Your task to perform on an android device: Open settings on Google Maps Image 0: 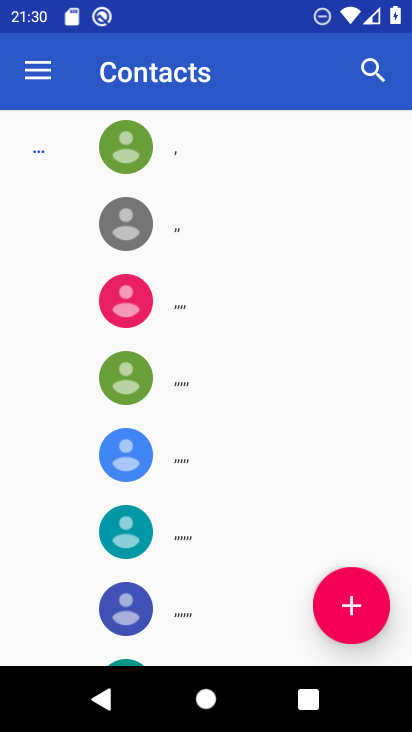
Step 0: press home button
Your task to perform on an android device: Open settings on Google Maps Image 1: 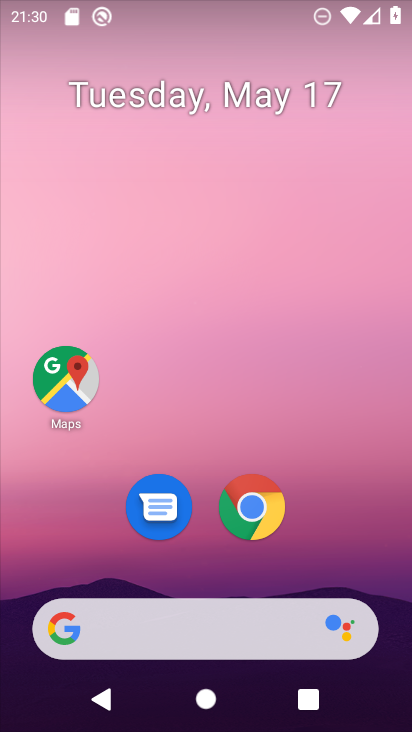
Step 1: click (72, 380)
Your task to perform on an android device: Open settings on Google Maps Image 2: 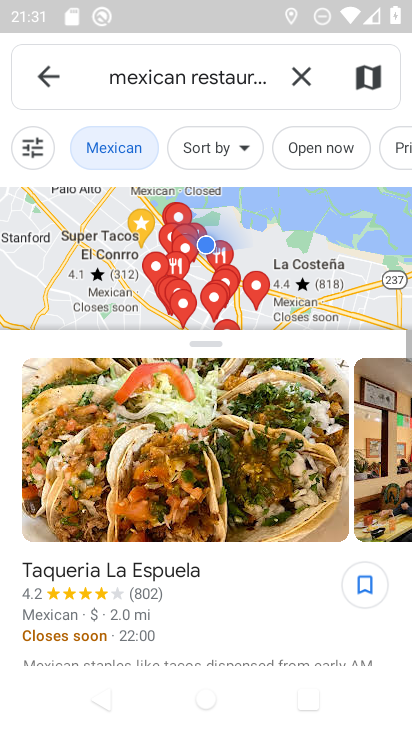
Step 2: click (297, 76)
Your task to perform on an android device: Open settings on Google Maps Image 3: 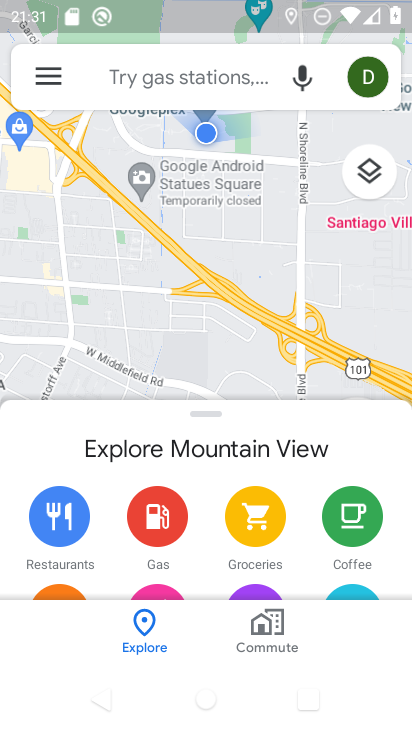
Step 3: click (50, 76)
Your task to perform on an android device: Open settings on Google Maps Image 4: 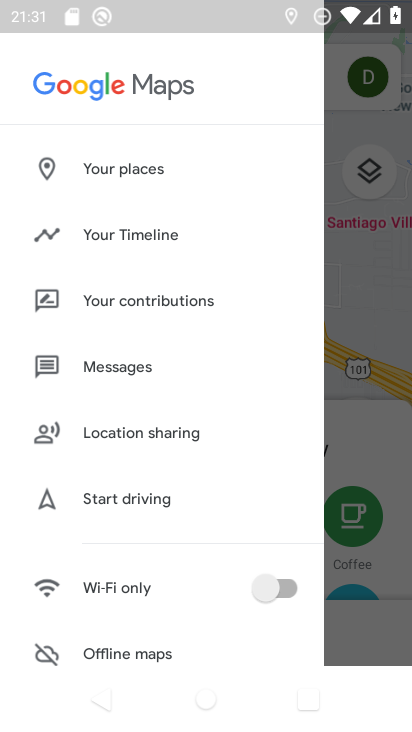
Step 4: drag from (105, 547) to (120, 363)
Your task to perform on an android device: Open settings on Google Maps Image 5: 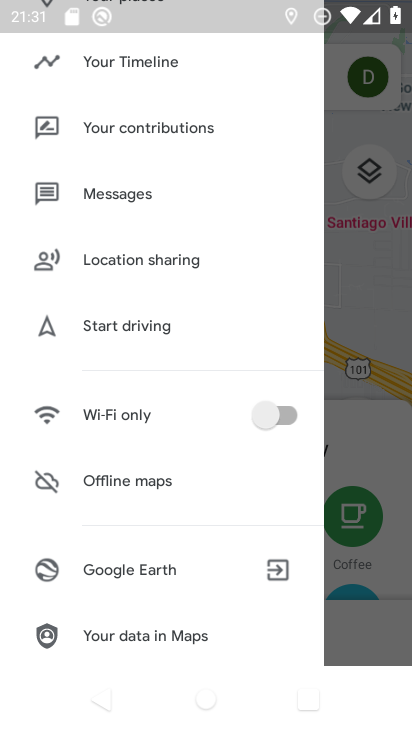
Step 5: drag from (128, 555) to (153, 237)
Your task to perform on an android device: Open settings on Google Maps Image 6: 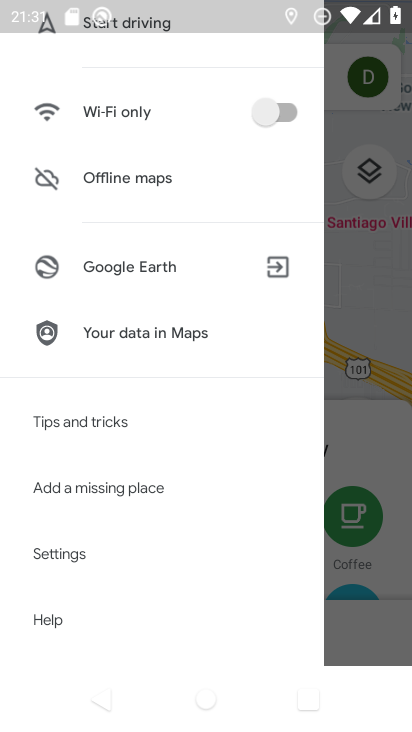
Step 6: drag from (137, 457) to (161, 244)
Your task to perform on an android device: Open settings on Google Maps Image 7: 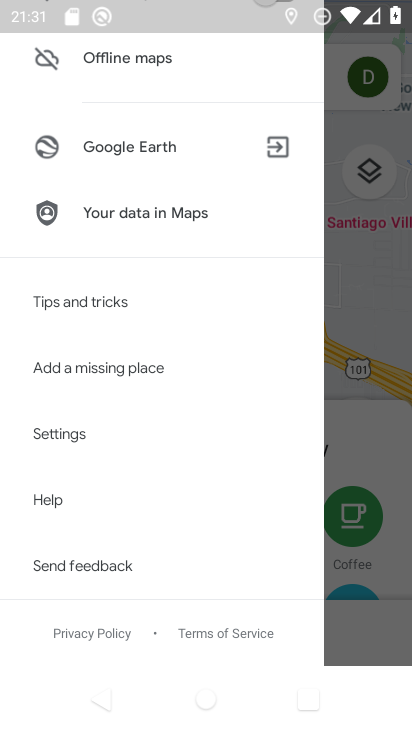
Step 7: click (56, 427)
Your task to perform on an android device: Open settings on Google Maps Image 8: 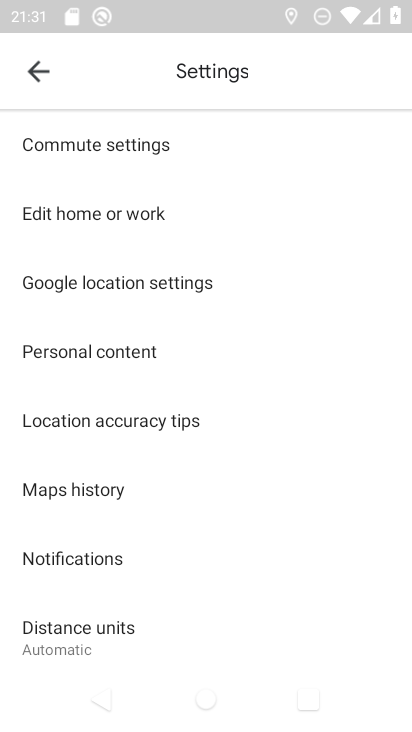
Step 8: task complete